Your task to perform on an android device: allow cookies in the chrome app Image 0: 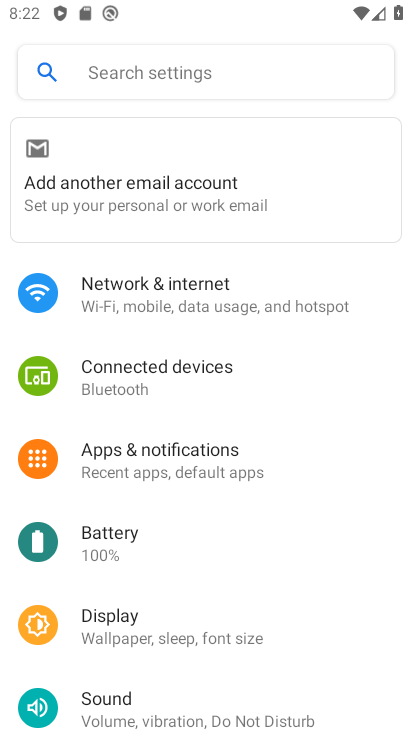
Step 0: press home button
Your task to perform on an android device: allow cookies in the chrome app Image 1: 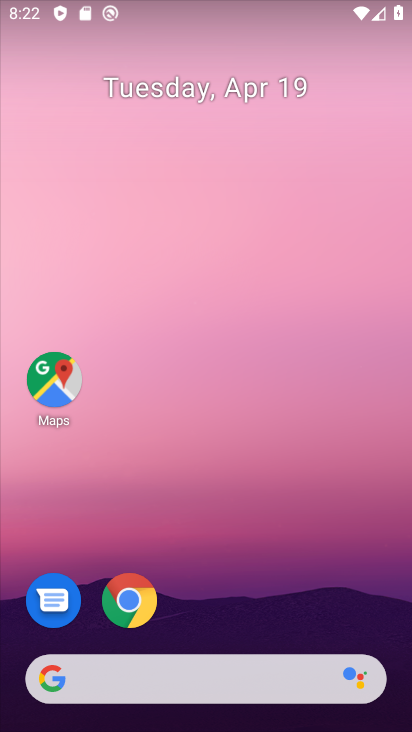
Step 1: drag from (347, 590) to (350, 104)
Your task to perform on an android device: allow cookies in the chrome app Image 2: 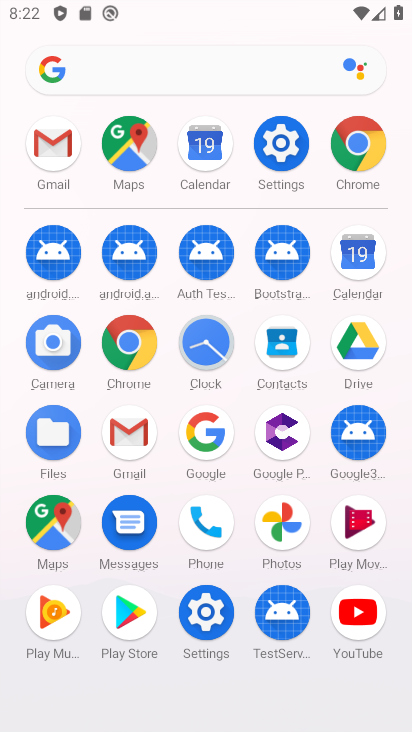
Step 2: click (368, 142)
Your task to perform on an android device: allow cookies in the chrome app Image 3: 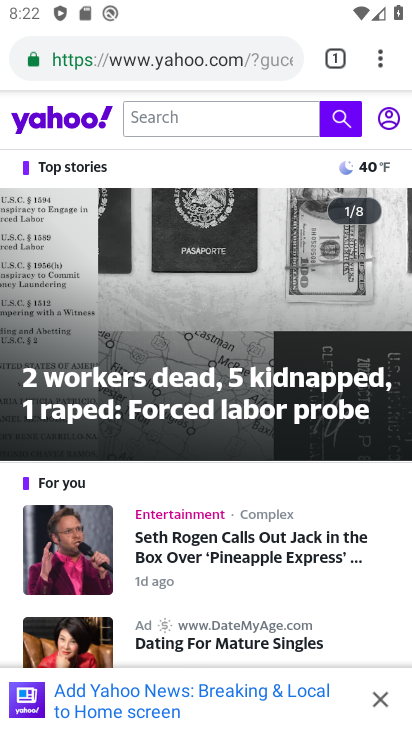
Step 3: click (379, 57)
Your task to perform on an android device: allow cookies in the chrome app Image 4: 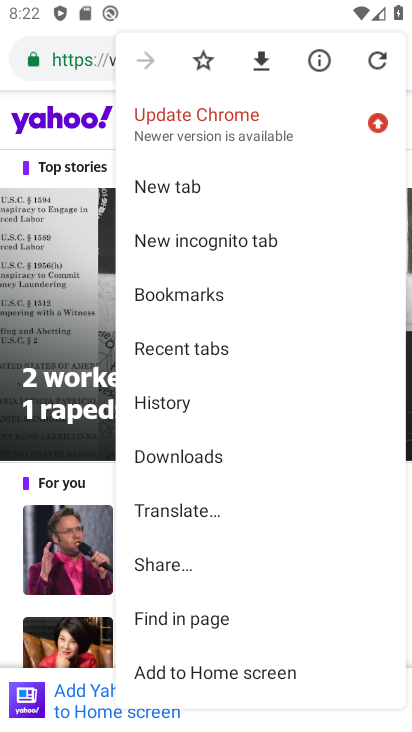
Step 4: drag from (335, 589) to (349, 339)
Your task to perform on an android device: allow cookies in the chrome app Image 5: 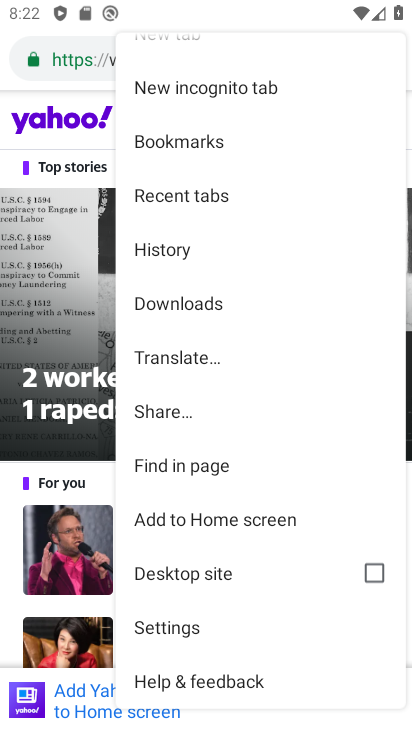
Step 5: click (180, 625)
Your task to perform on an android device: allow cookies in the chrome app Image 6: 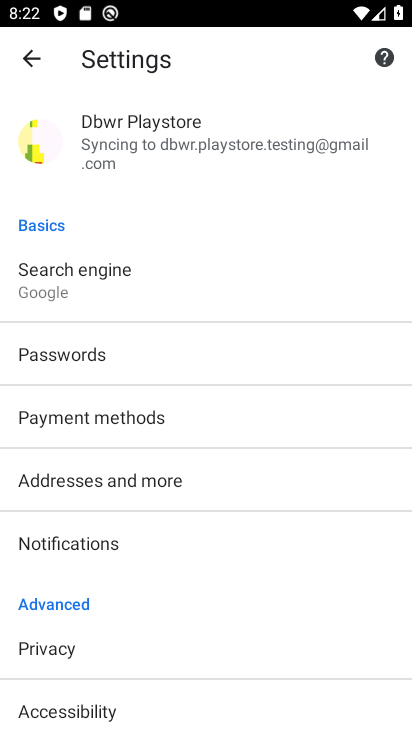
Step 6: drag from (285, 585) to (308, 342)
Your task to perform on an android device: allow cookies in the chrome app Image 7: 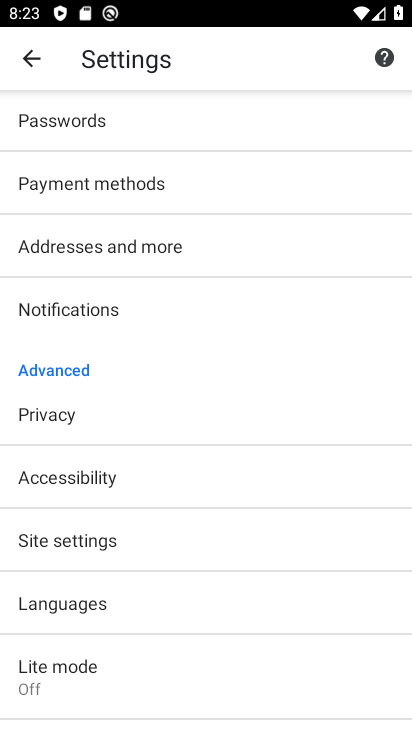
Step 7: drag from (314, 612) to (344, 340)
Your task to perform on an android device: allow cookies in the chrome app Image 8: 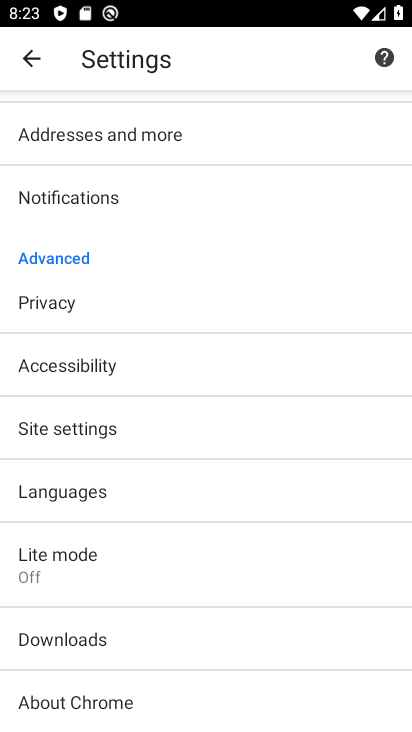
Step 8: drag from (303, 276) to (289, 456)
Your task to perform on an android device: allow cookies in the chrome app Image 9: 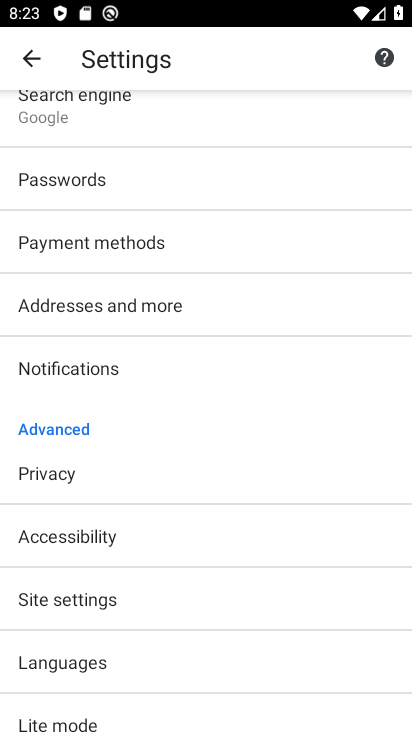
Step 9: click (181, 592)
Your task to perform on an android device: allow cookies in the chrome app Image 10: 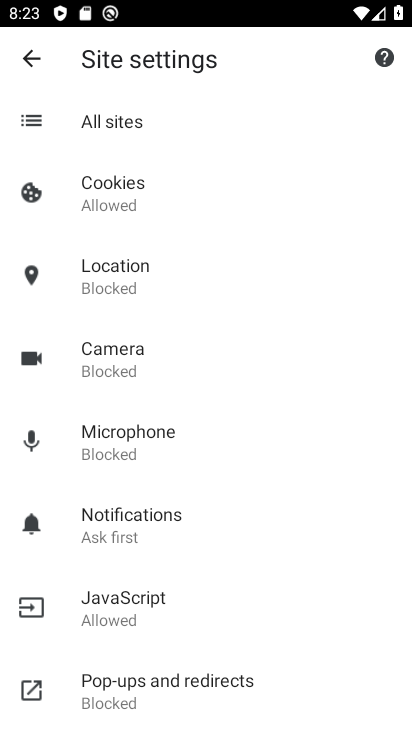
Step 10: drag from (295, 613) to (333, 412)
Your task to perform on an android device: allow cookies in the chrome app Image 11: 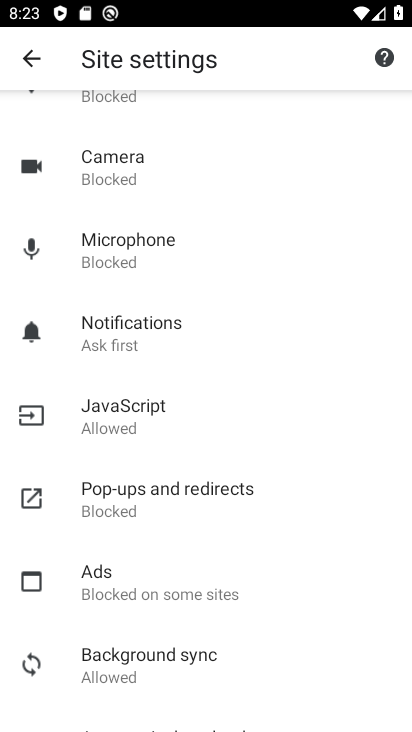
Step 11: drag from (347, 668) to (372, 393)
Your task to perform on an android device: allow cookies in the chrome app Image 12: 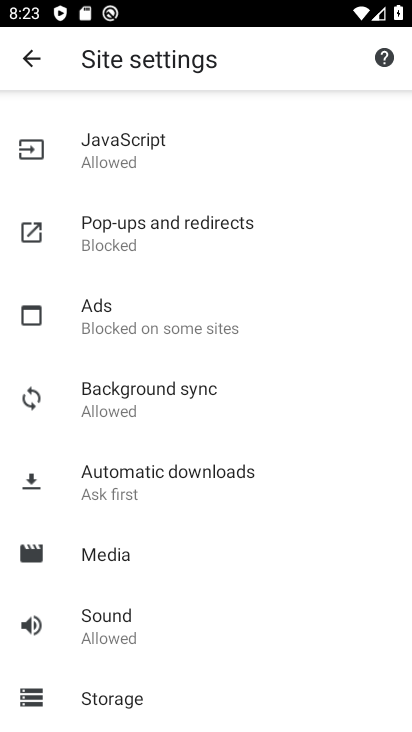
Step 12: drag from (337, 614) to (342, 331)
Your task to perform on an android device: allow cookies in the chrome app Image 13: 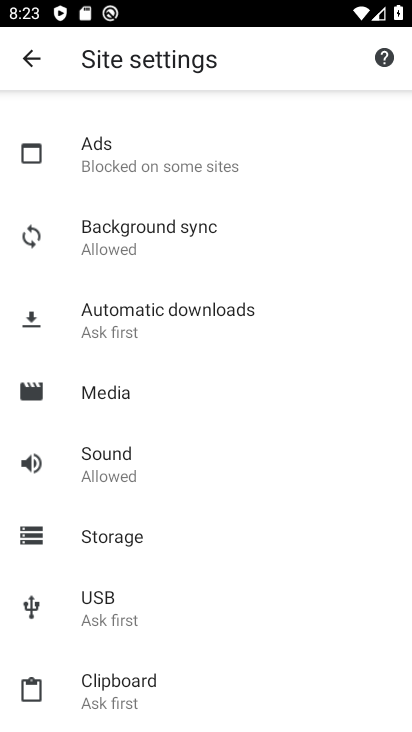
Step 13: drag from (322, 240) to (298, 531)
Your task to perform on an android device: allow cookies in the chrome app Image 14: 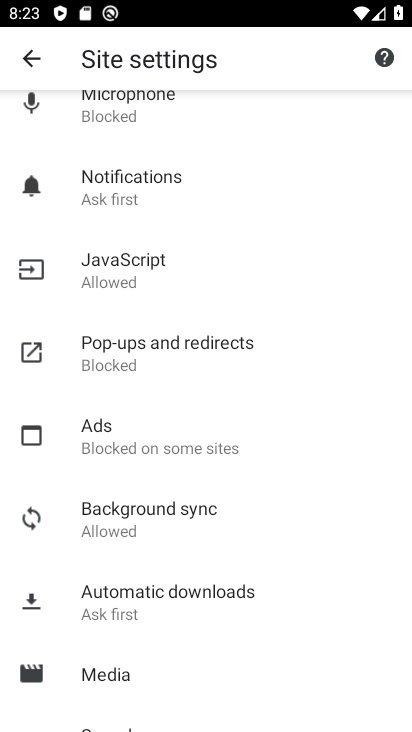
Step 14: drag from (326, 273) to (323, 519)
Your task to perform on an android device: allow cookies in the chrome app Image 15: 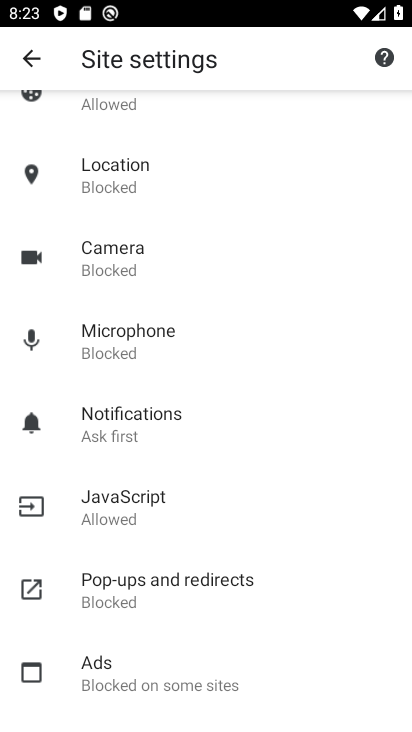
Step 15: drag from (333, 250) to (326, 494)
Your task to perform on an android device: allow cookies in the chrome app Image 16: 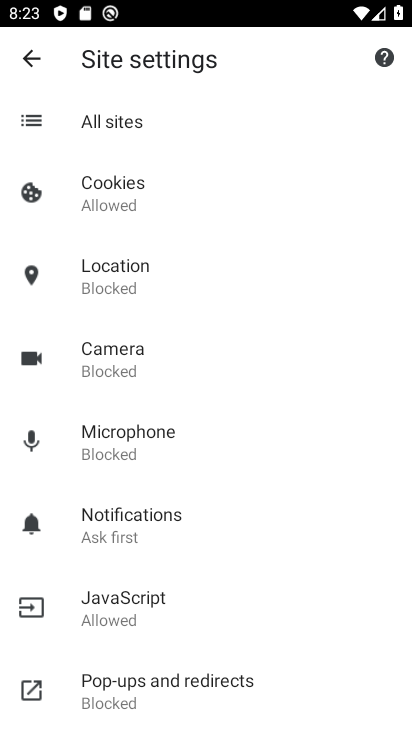
Step 16: click (117, 192)
Your task to perform on an android device: allow cookies in the chrome app Image 17: 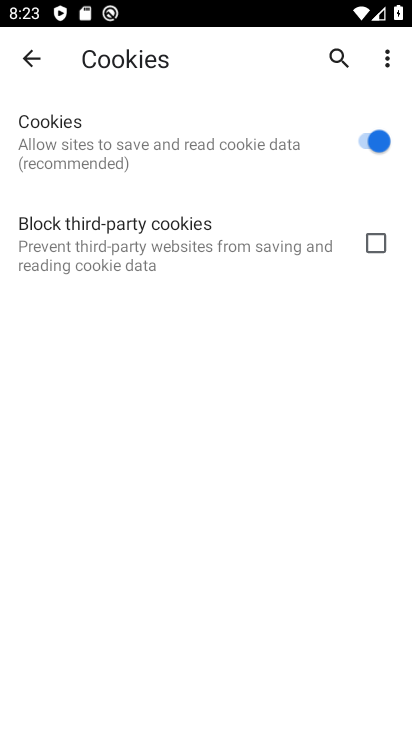
Step 17: task complete